Your task to perform on an android device: turn notification dots on Image 0: 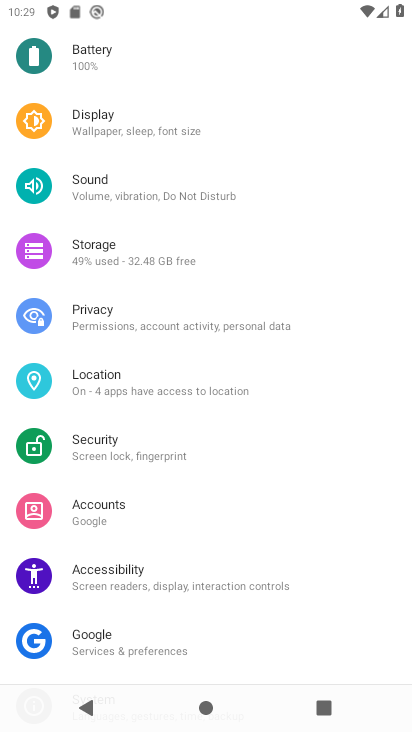
Step 0: press home button
Your task to perform on an android device: turn notification dots on Image 1: 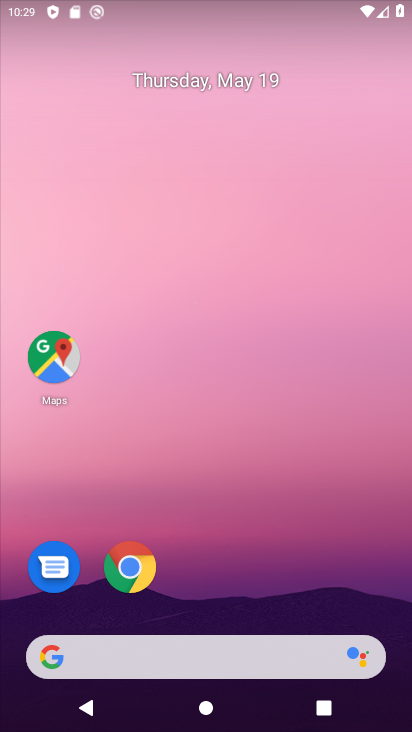
Step 1: drag from (377, 604) to (266, 81)
Your task to perform on an android device: turn notification dots on Image 2: 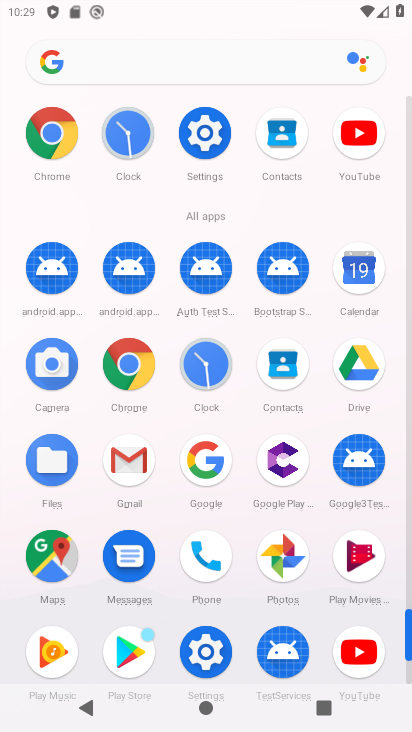
Step 2: click (206, 651)
Your task to perform on an android device: turn notification dots on Image 3: 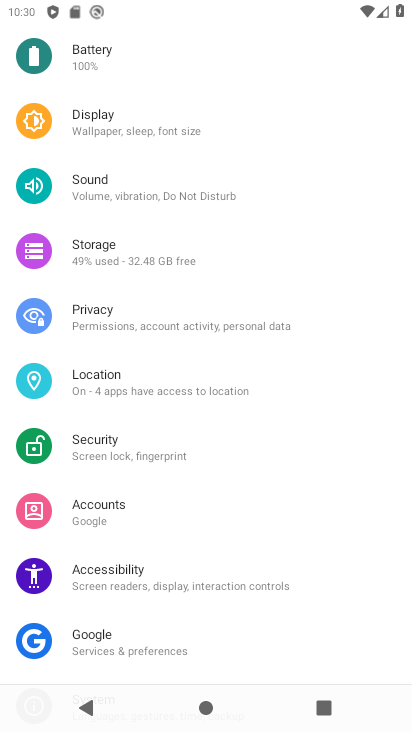
Step 3: drag from (265, 273) to (296, 517)
Your task to perform on an android device: turn notification dots on Image 4: 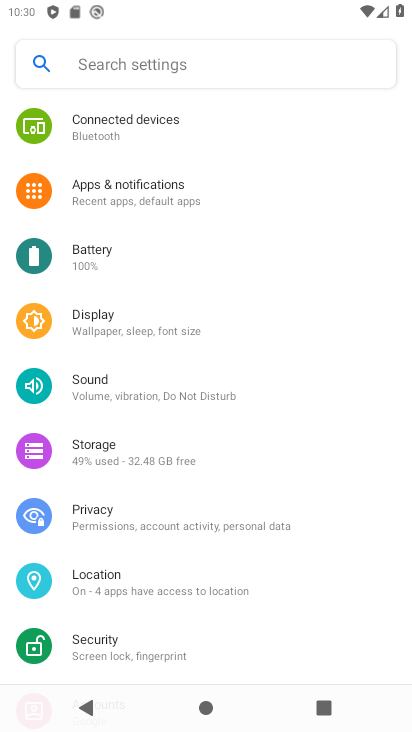
Step 4: click (139, 184)
Your task to perform on an android device: turn notification dots on Image 5: 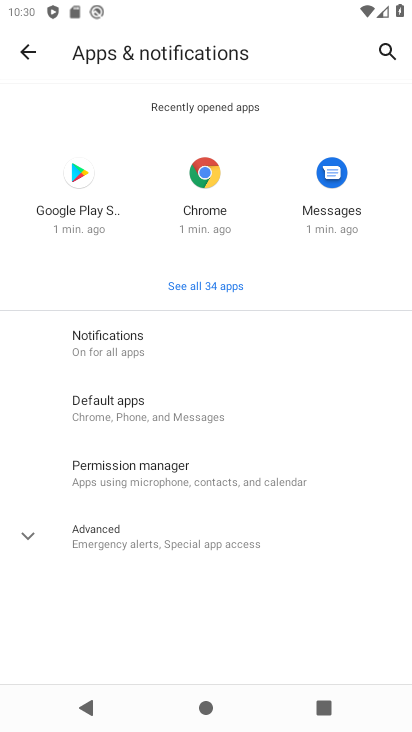
Step 5: click (112, 336)
Your task to perform on an android device: turn notification dots on Image 6: 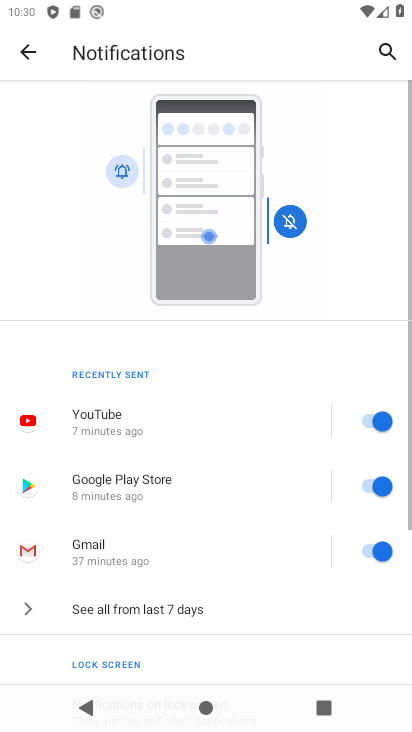
Step 6: drag from (260, 569) to (275, 93)
Your task to perform on an android device: turn notification dots on Image 7: 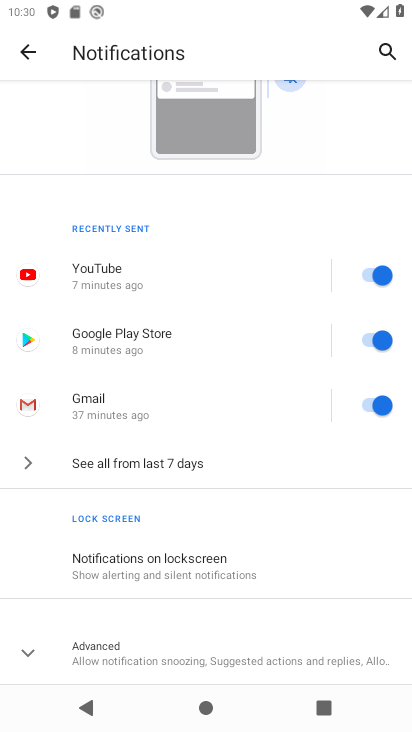
Step 7: click (21, 655)
Your task to perform on an android device: turn notification dots on Image 8: 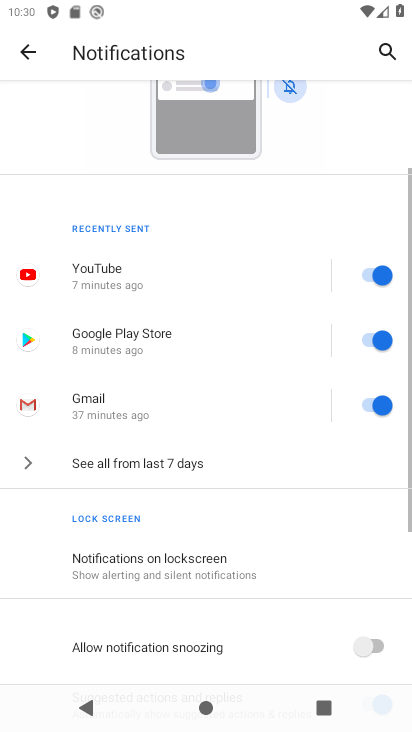
Step 8: task complete